Your task to perform on an android device: Do I have any events this weekend? Image 0: 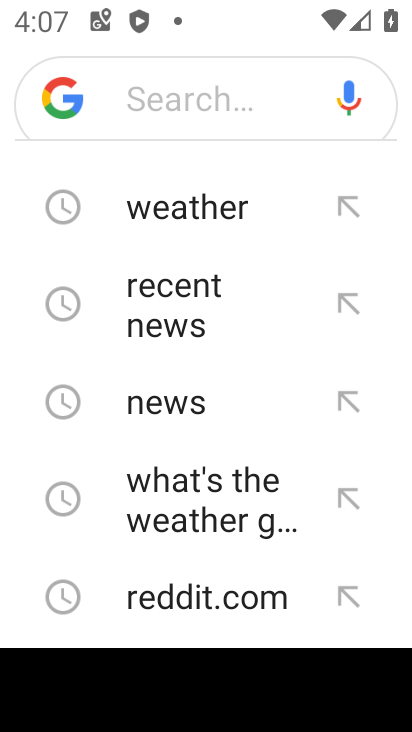
Step 0: press back button
Your task to perform on an android device: Do I have any events this weekend? Image 1: 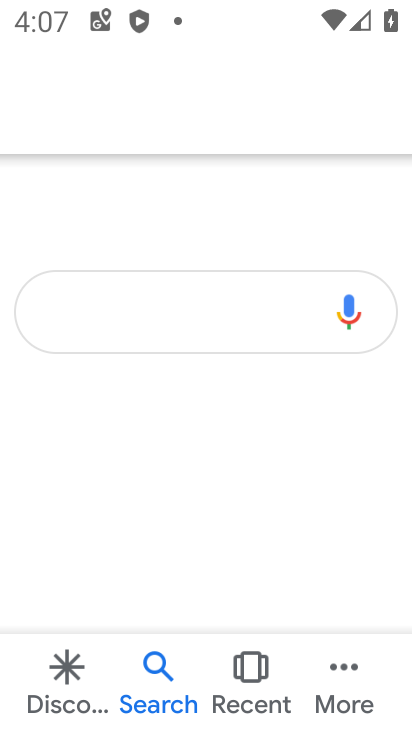
Step 1: press back button
Your task to perform on an android device: Do I have any events this weekend? Image 2: 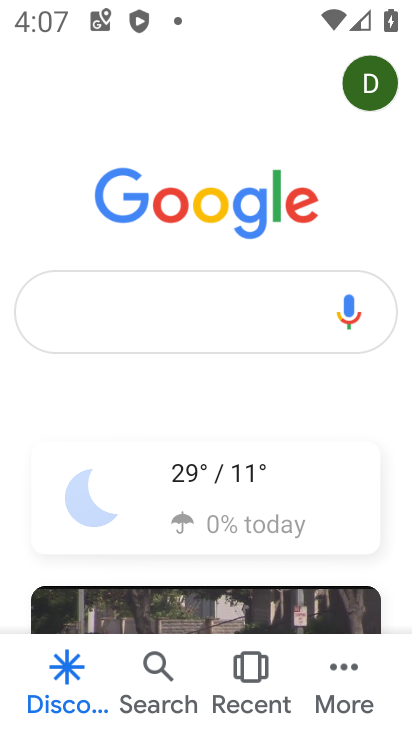
Step 2: press back button
Your task to perform on an android device: Do I have any events this weekend? Image 3: 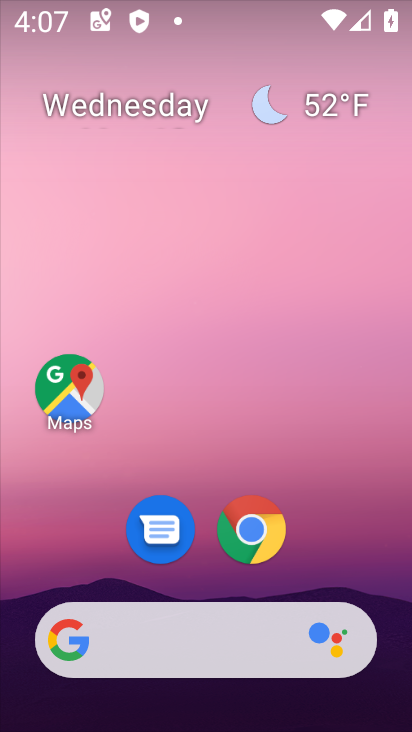
Step 3: drag from (329, 549) to (235, 0)
Your task to perform on an android device: Do I have any events this weekend? Image 4: 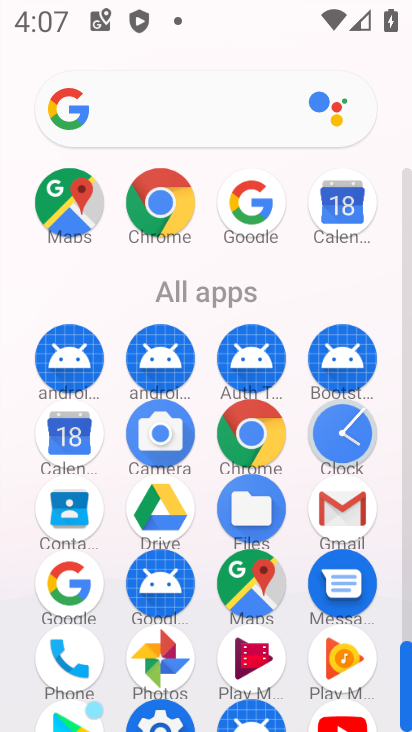
Step 4: click (341, 206)
Your task to perform on an android device: Do I have any events this weekend? Image 5: 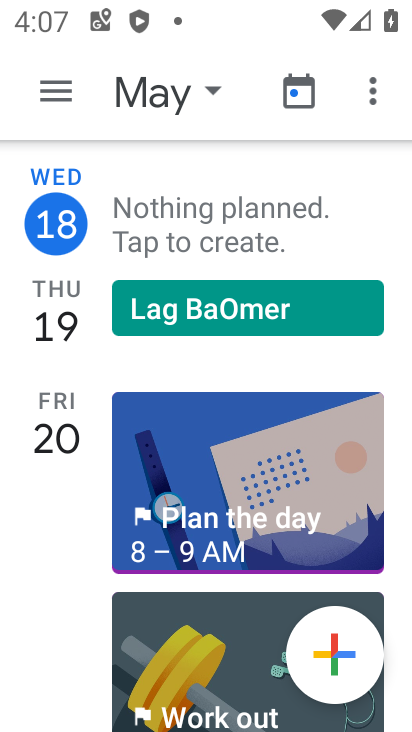
Step 5: click (214, 87)
Your task to perform on an android device: Do I have any events this weekend? Image 6: 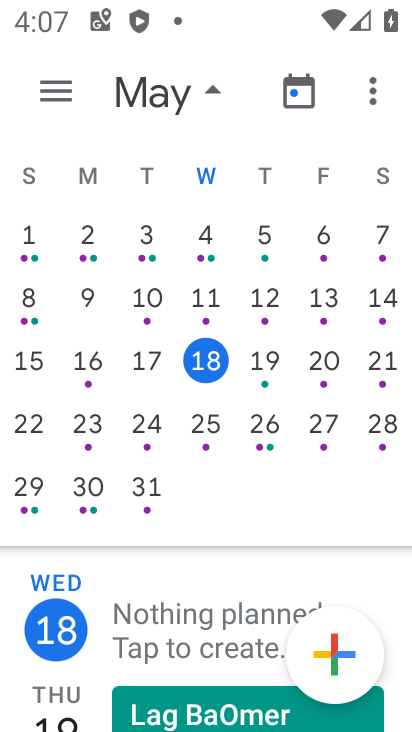
Step 6: click (380, 364)
Your task to perform on an android device: Do I have any events this weekend? Image 7: 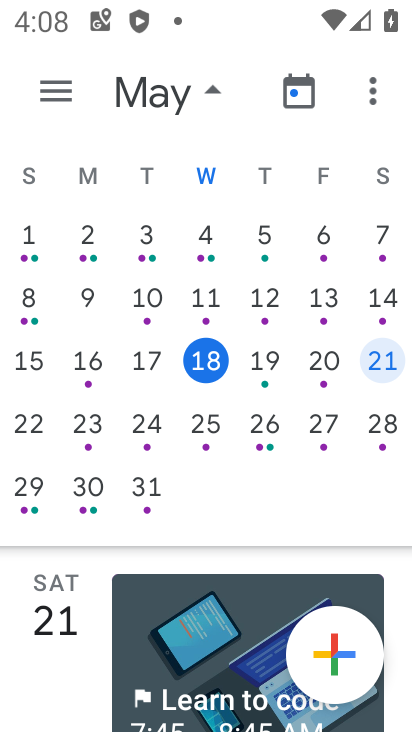
Step 7: click (59, 90)
Your task to perform on an android device: Do I have any events this weekend? Image 8: 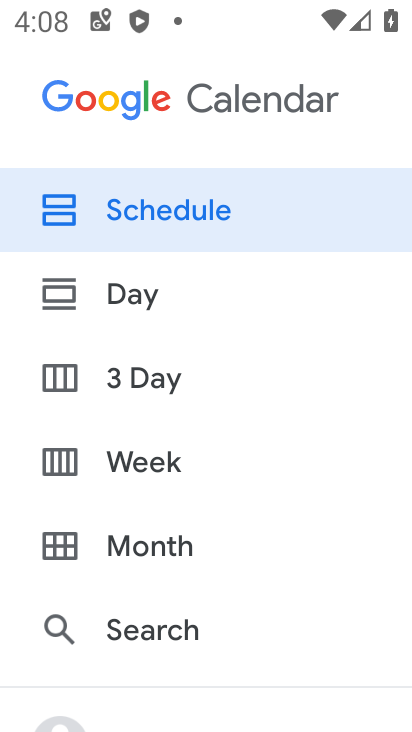
Step 8: click (150, 466)
Your task to perform on an android device: Do I have any events this weekend? Image 9: 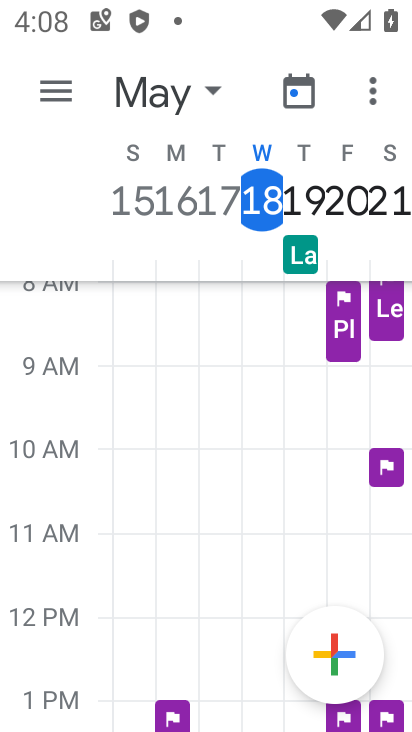
Step 9: task complete